Your task to perform on an android device: Go to Google maps Image 0: 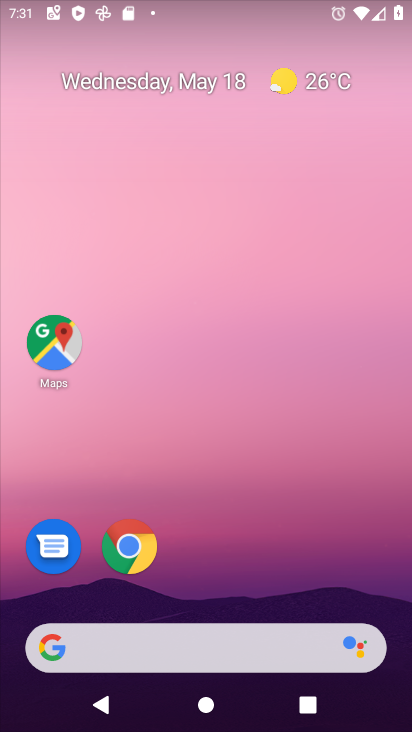
Step 0: drag from (391, 629) to (289, 708)
Your task to perform on an android device: Go to Google maps Image 1: 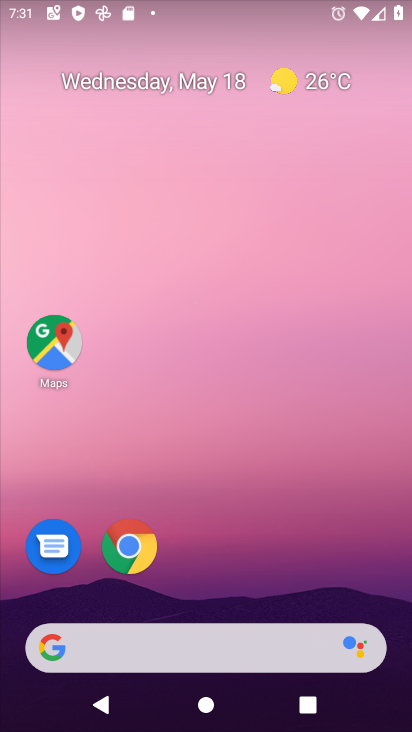
Step 1: drag from (305, 602) to (336, 85)
Your task to perform on an android device: Go to Google maps Image 2: 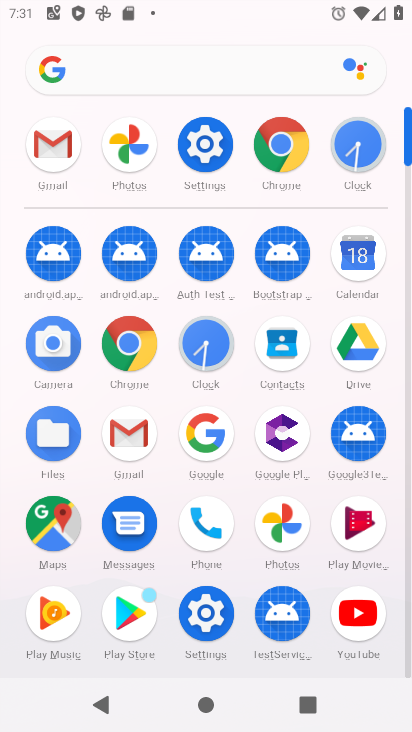
Step 2: click (51, 545)
Your task to perform on an android device: Go to Google maps Image 3: 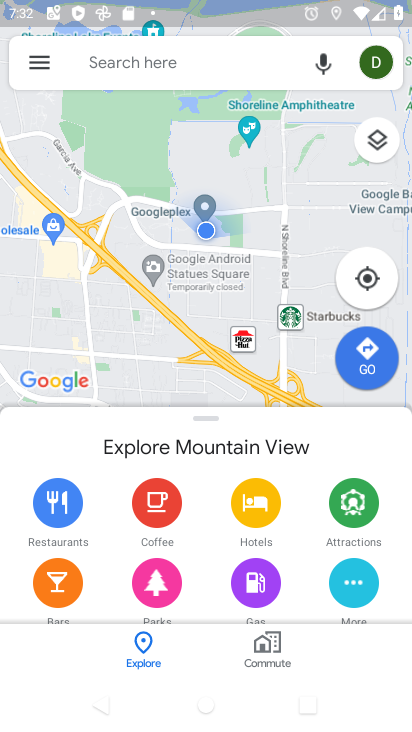
Step 3: task complete